Your task to perform on an android device: What's on my calendar tomorrow? Image 0: 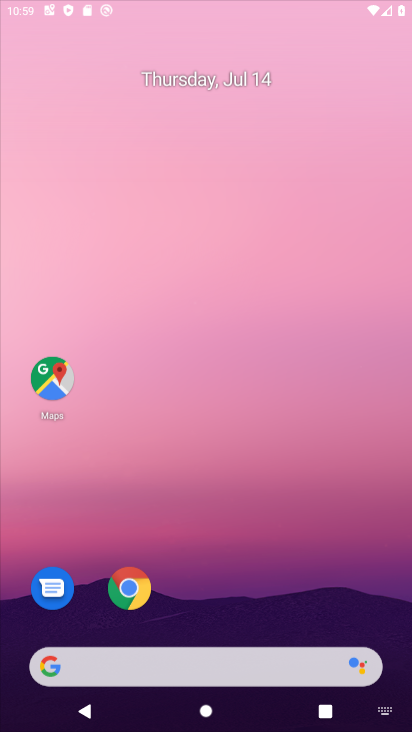
Step 0: click (297, 130)
Your task to perform on an android device: What's on my calendar tomorrow? Image 1: 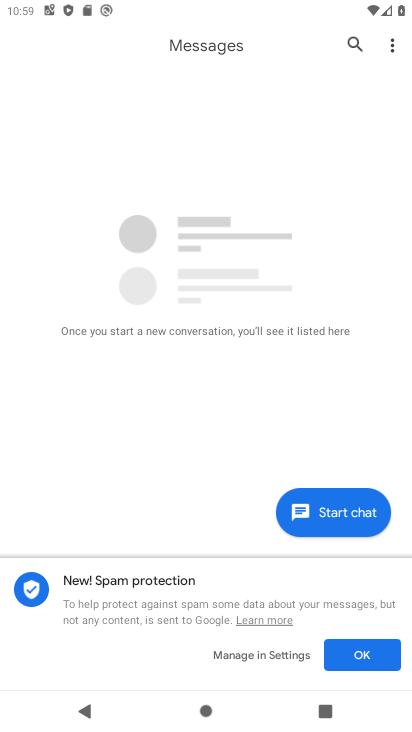
Step 1: press home button
Your task to perform on an android device: What's on my calendar tomorrow? Image 2: 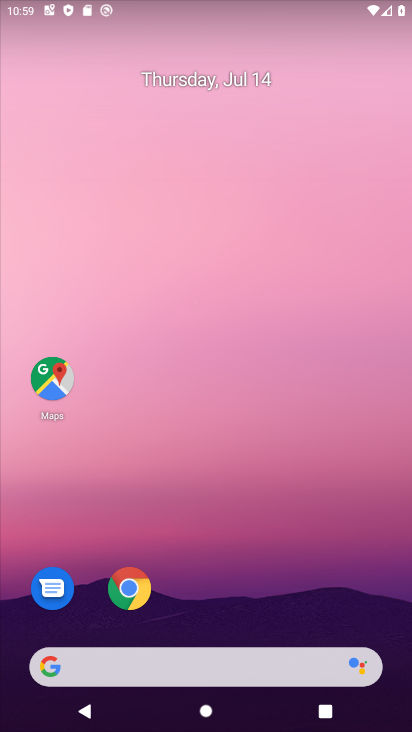
Step 2: drag from (386, 662) to (329, 139)
Your task to perform on an android device: What's on my calendar tomorrow? Image 3: 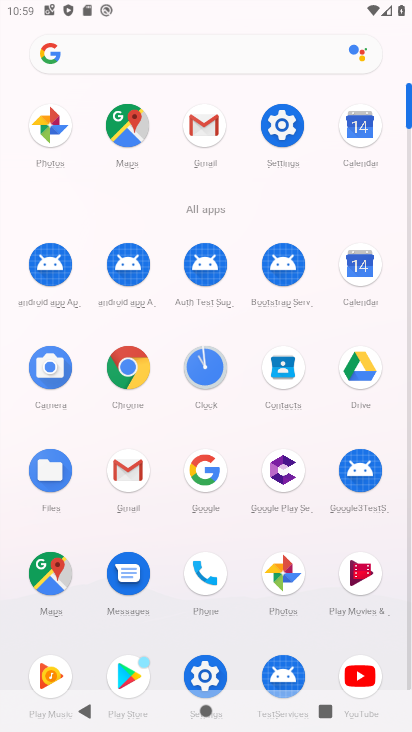
Step 3: click (360, 269)
Your task to perform on an android device: What's on my calendar tomorrow? Image 4: 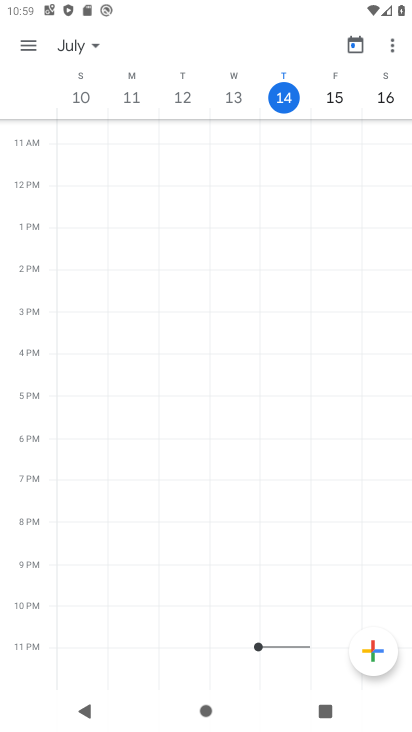
Step 4: click (26, 43)
Your task to perform on an android device: What's on my calendar tomorrow? Image 5: 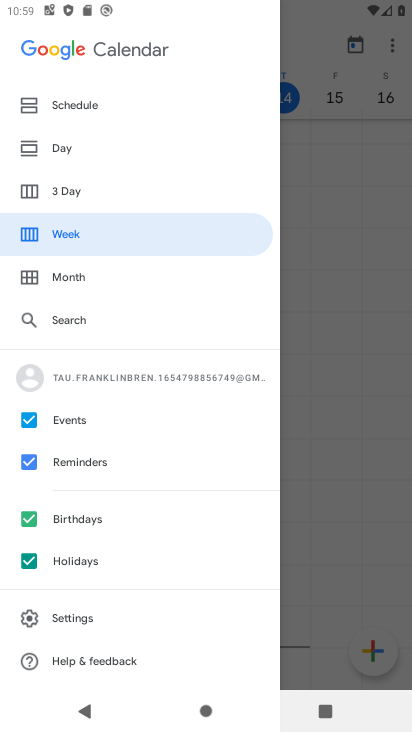
Step 5: click (53, 149)
Your task to perform on an android device: What's on my calendar tomorrow? Image 6: 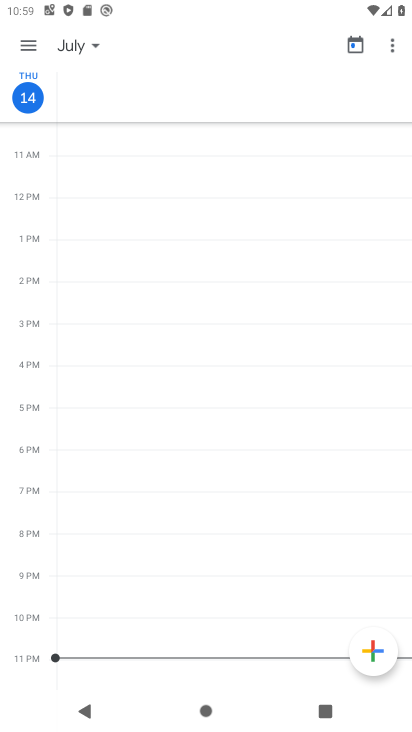
Step 6: click (90, 40)
Your task to perform on an android device: What's on my calendar tomorrow? Image 7: 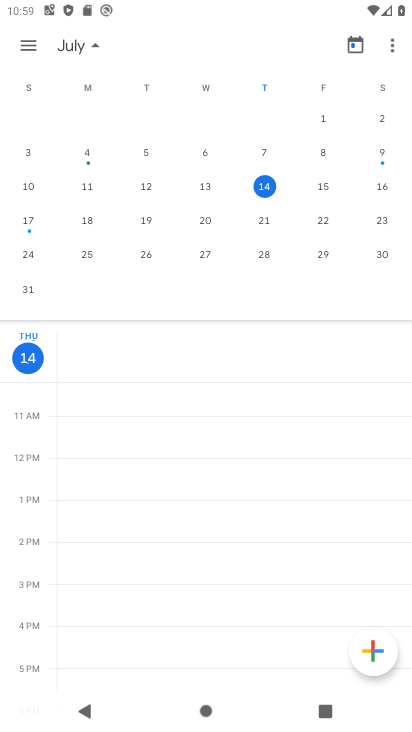
Step 7: click (323, 186)
Your task to perform on an android device: What's on my calendar tomorrow? Image 8: 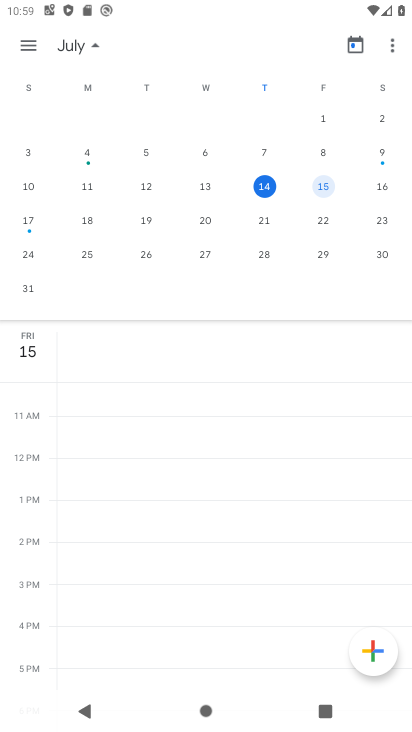
Step 8: task complete